Your task to perform on an android device: Open eBay Image 0: 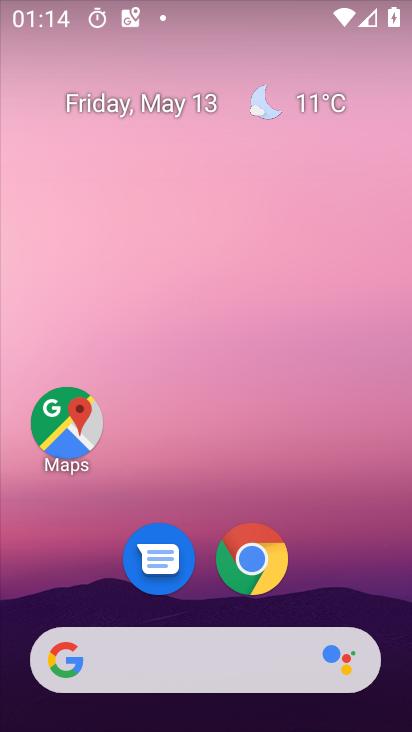
Step 0: drag from (229, 442) to (234, 87)
Your task to perform on an android device: Open eBay Image 1: 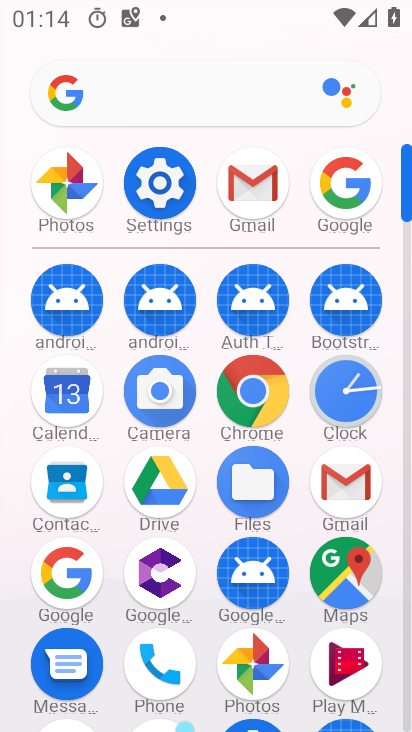
Step 1: click (341, 194)
Your task to perform on an android device: Open eBay Image 2: 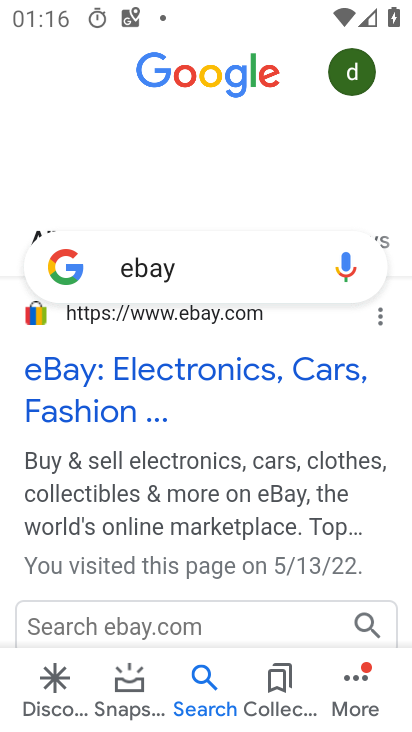
Step 2: task complete